Your task to perform on an android device: visit the assistant section in the google photos Image 0: 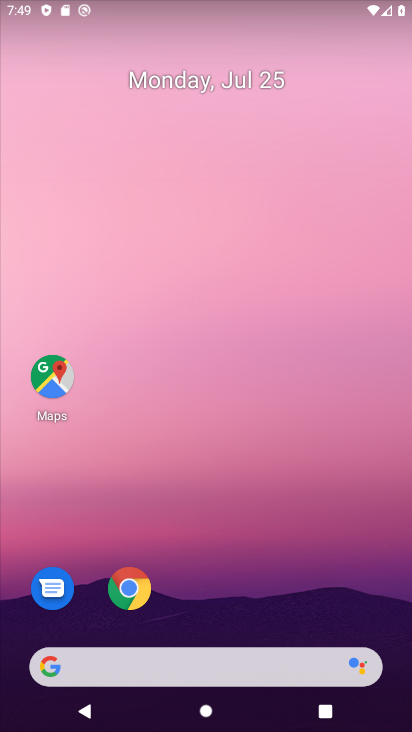
Step 0: drag from (168, 643) to (164, 253)
Your task to perform on an android device: visit the assistant section in the google photos Image 1: 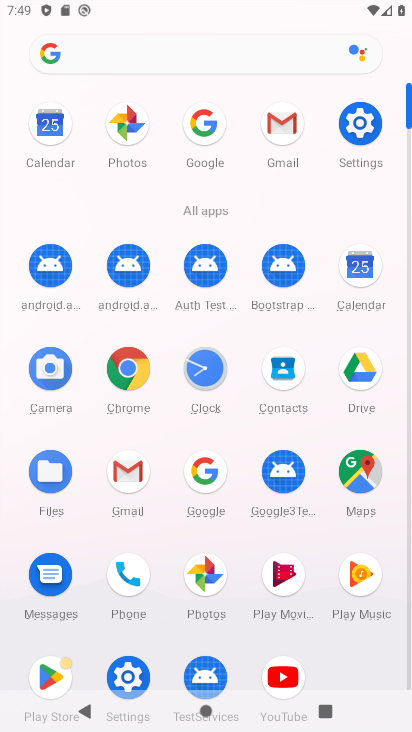
Step 1: click (197, 583)
Your task to perform on an android device: visit the assistant section in the google photos Image 2: 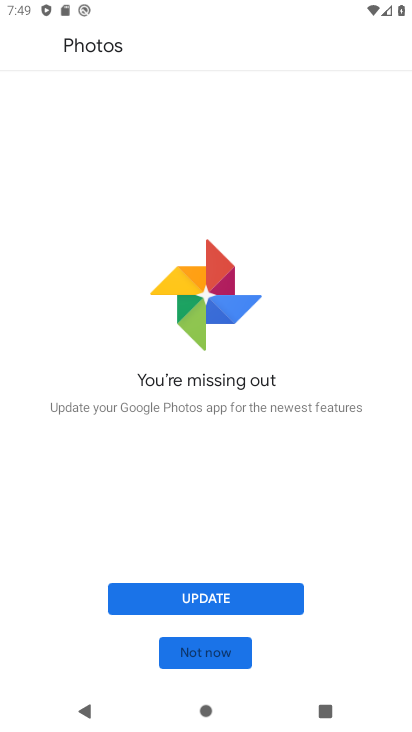
Step 2: click (174, 653)
Your task to perform on an android device: visit the assistant section in the google photos Image 3: 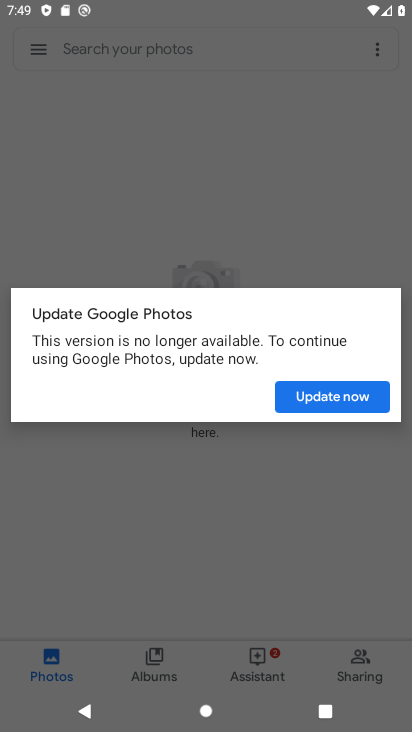
Step 3: click (327, 400)
Your task to perform on an android device: visit the assistant section in the google photos Image 4: 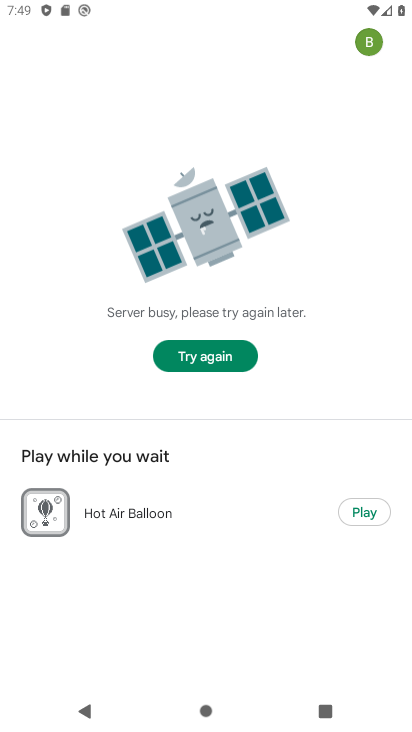
Step 4: click (190, 356)
Your task to perform on an android device: visit the assistant section in the google photos Image 5: 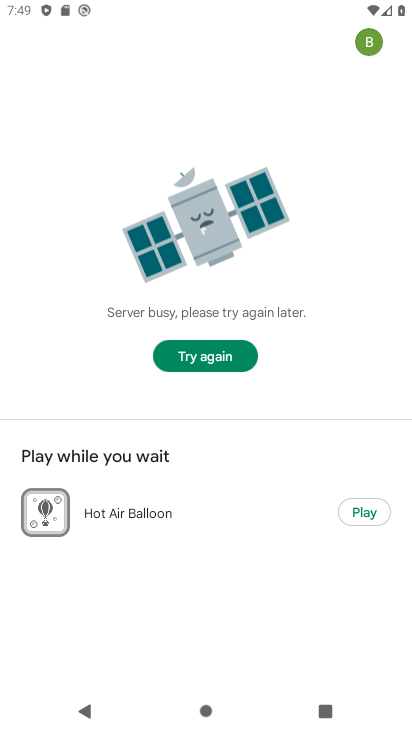
Step 5: task complete